Your task to perform on an android device: empty trash in the gmail app Image 0: 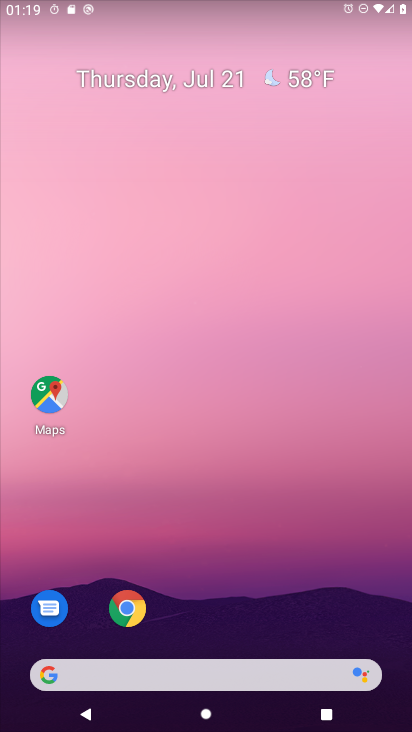
Step 0: press home button
Your task to perform on an android device: empty trash in the gmail app Image 1: 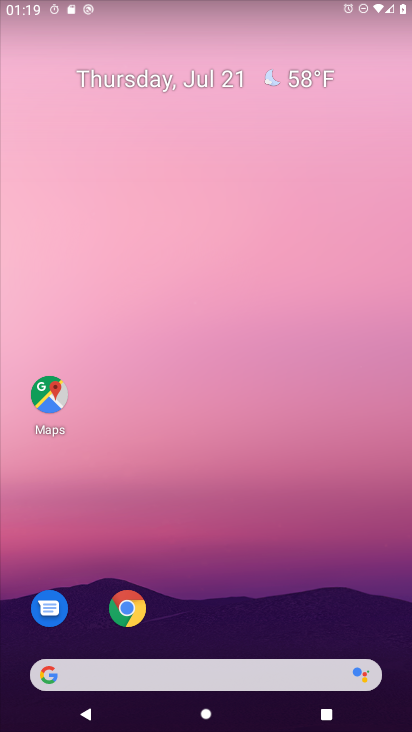
Step 1: drag from (268, 636) to (284, 154)
Your task to perform on an android device: empty trash in the gmail app Image 2: 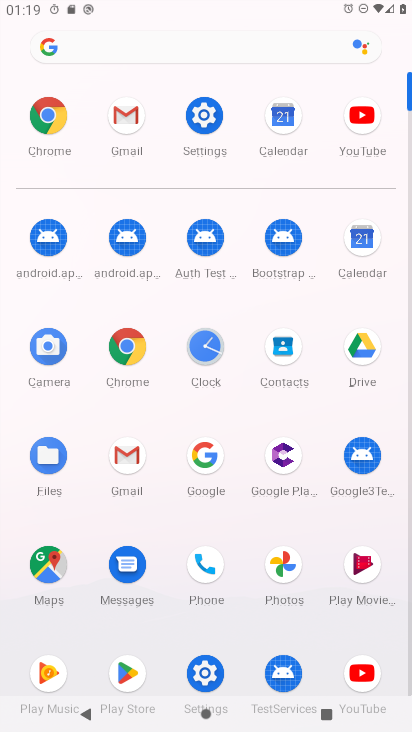
Step 2: click (128, 125)
Your task to perform on an android device: empty trash in the gmail app Image 3: 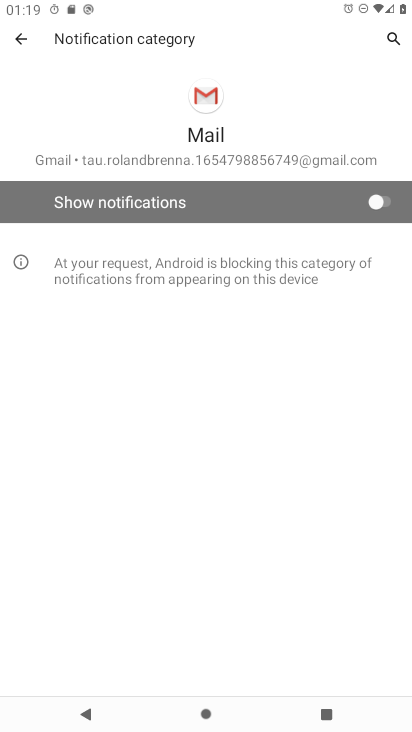
Step 3: click (25, 43)
Your task to perform on an android device: empty trash in the gmail app Image 4: 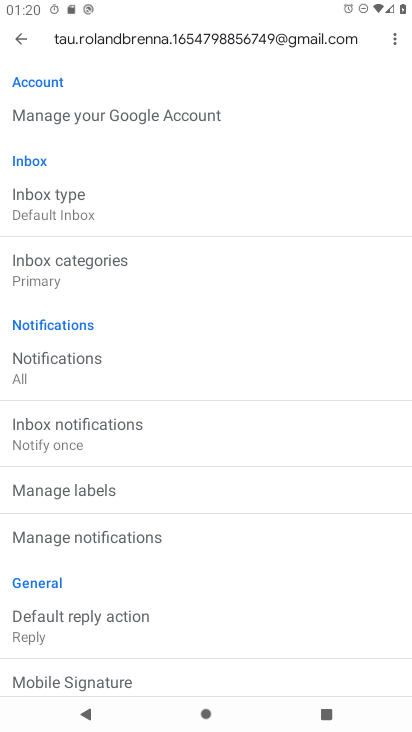
Step 4: click (29, 44)
Your task to perform on an android device: empty trash in the gmail app Image 5: 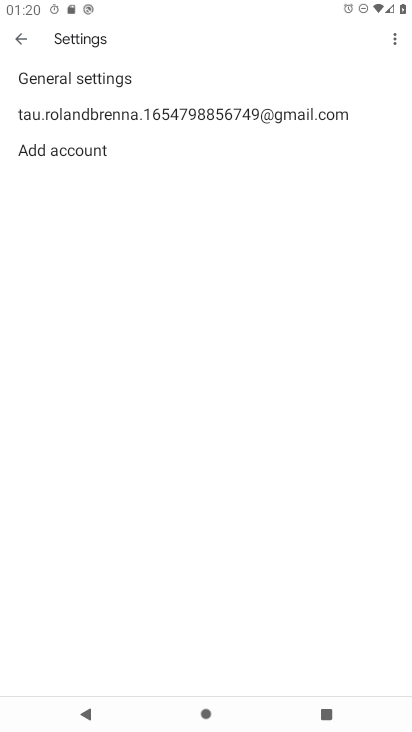
Step 5: click (29, 45)
Your task to perform on an android device: empty trash in the gmail app Image 6: 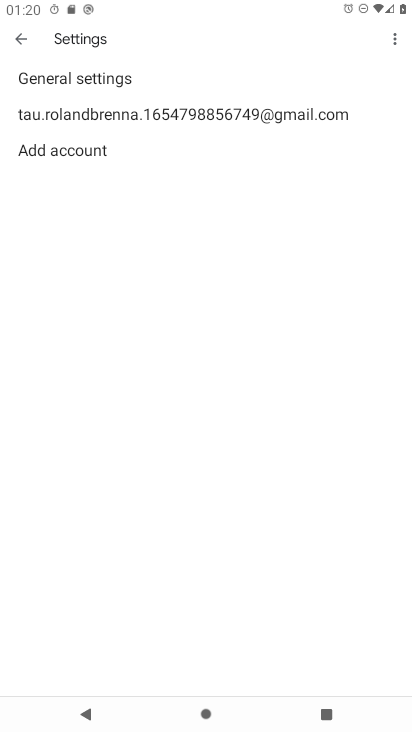
Step 6: click (17, 29)
Your task to perform on an android device: empty trash in the gmail app Image 7: 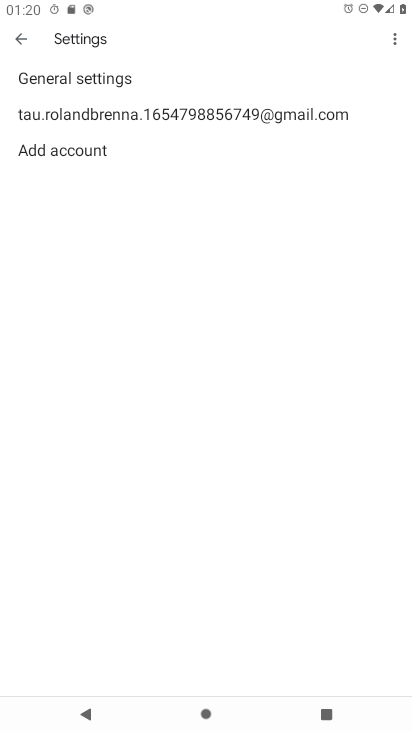
Step 7: click (20, 36)
Your task to perform on an android device: empty trash in the gmail app Image 8: 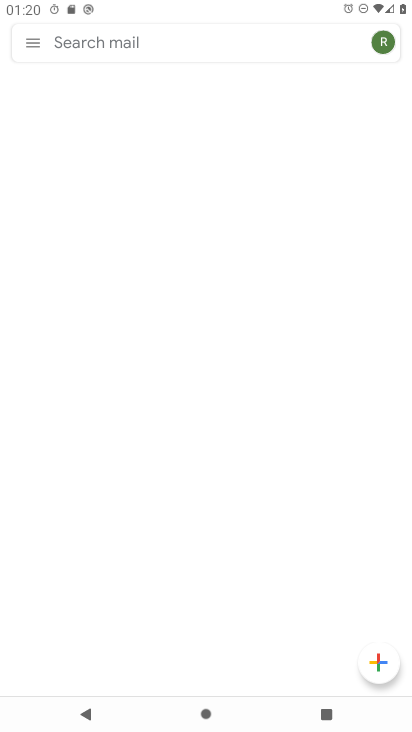
Step 8: click (21, 36)
Your task to perform on an android device: empty trash in the gmail app Image 9: 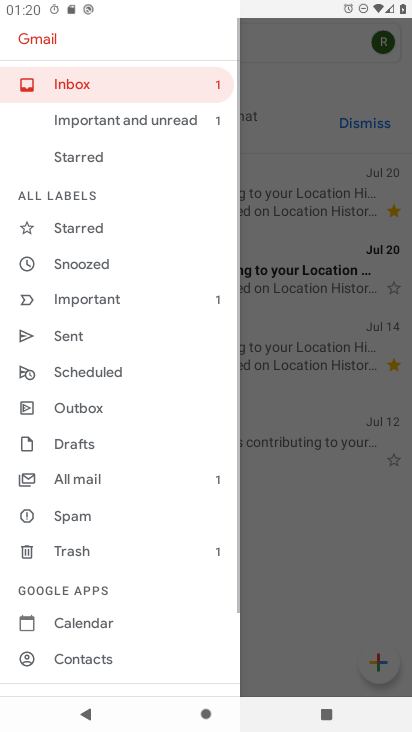
Step 9: click (70, 551)
Your task to perform on an android device: empty trash in the gmail app Image 10: 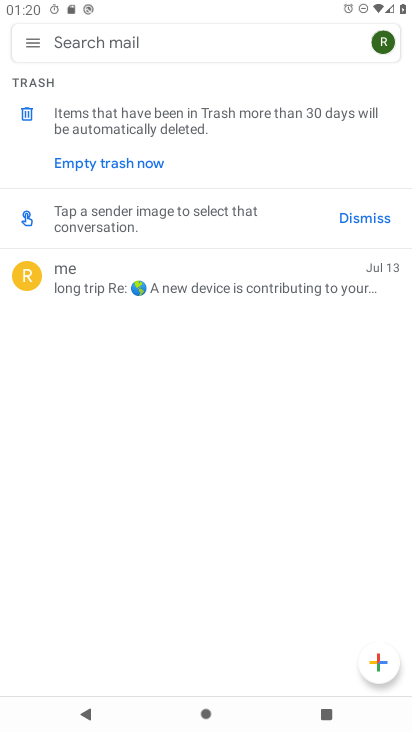
Step 10: click (23, 120)
Your task to perform on an android device: empty trash in the gmail app Image 11: 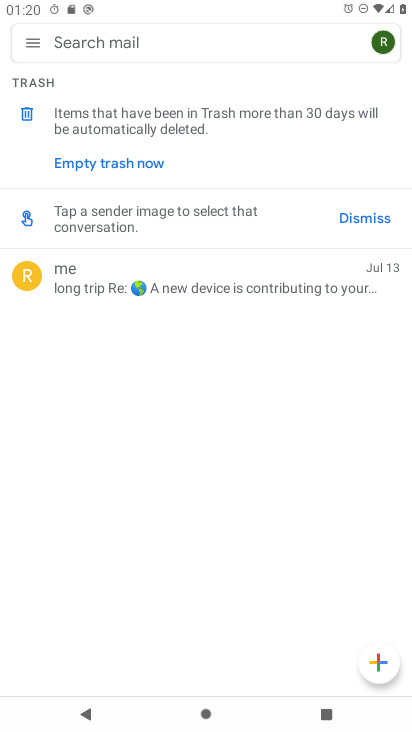
Step 11: click (32, 111)
Your task to perform on an android device: empty trash in the gmail app Image 12: 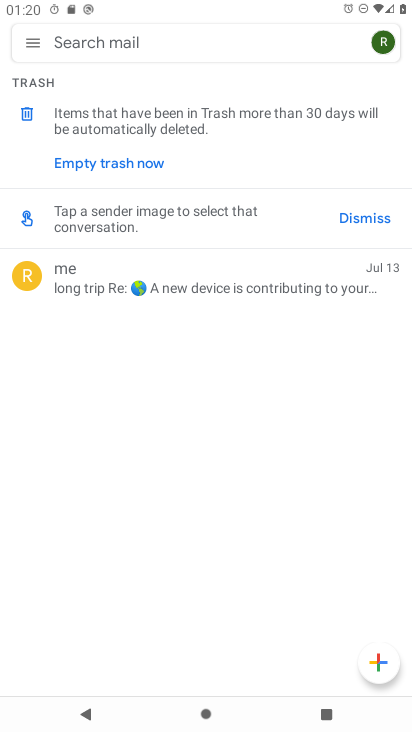
Step 12: click (32, 111)
Your task to perform on an android device: empty trash in the gmail app Image 13: 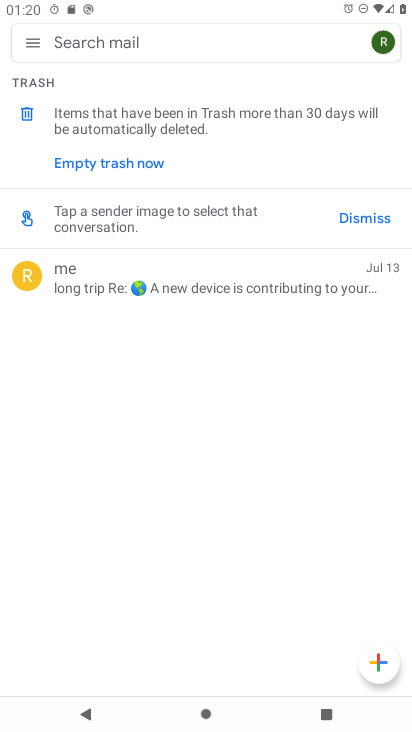
Step 13: click (120, 280)
Your task to perform on an android device: empty trash in the gmail app Image 14: 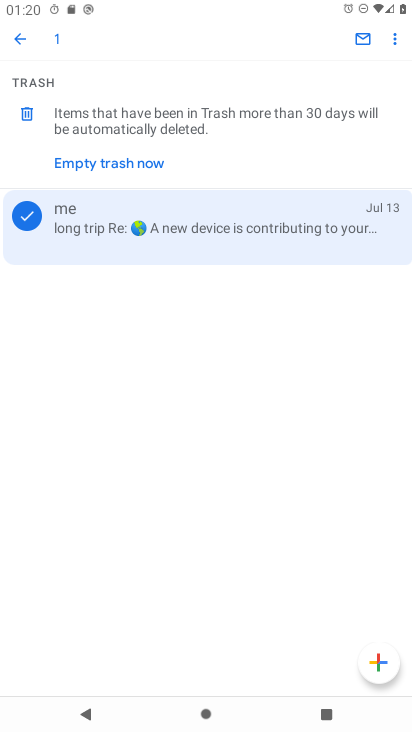
Step 14: click (22, 114)
Your task to perform on an android device: empty trash in the gmail app Image 15: 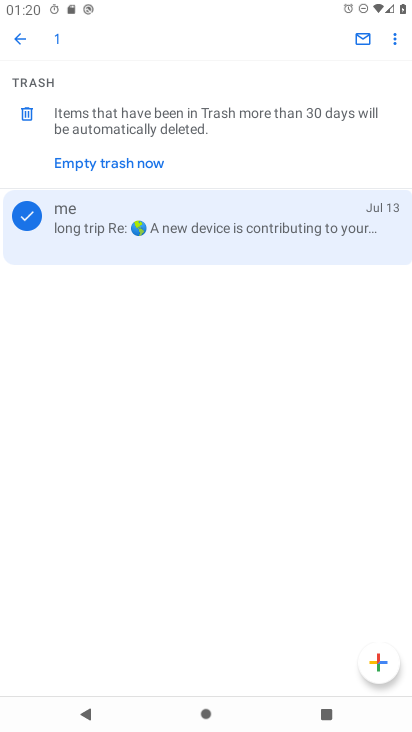
Step 15: click (108, 158)
Your task to perform on an android device: empty trash in the gmail app Image 16: 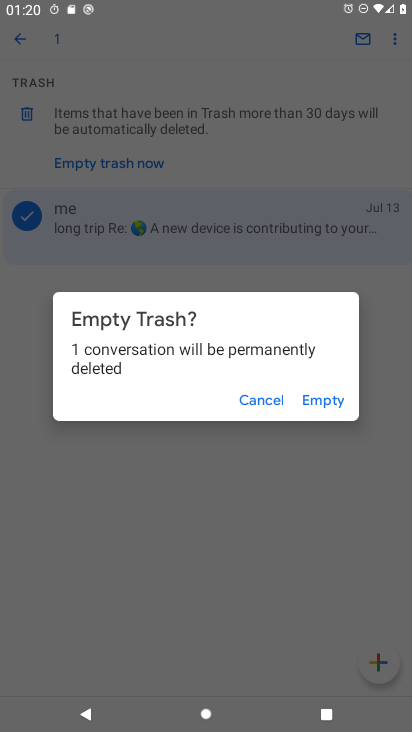
Step 16: click (316, 397)
Your task to perform on an android device: empty trash in the gmail app Image 17: 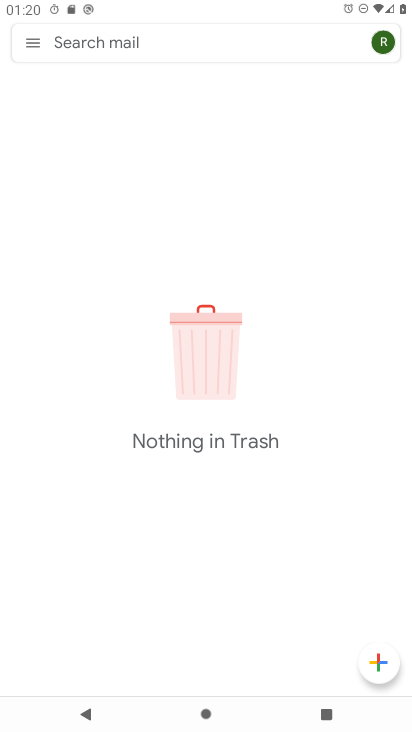
Step 17: task complete